Your task to perform on an android device: What's the weather going to be tomorrow? Image 0: 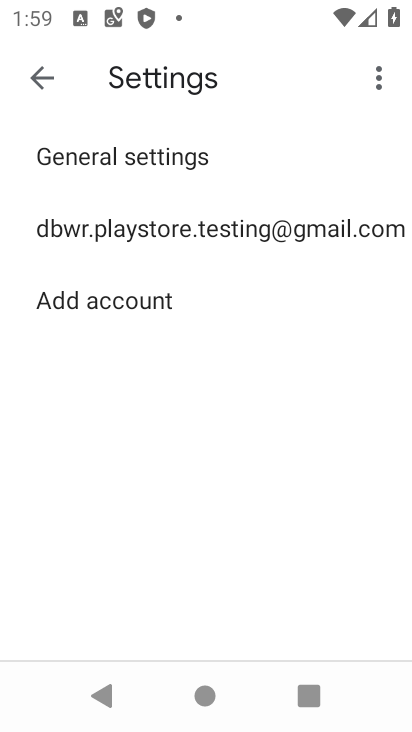
Step 0: press home button
Your task to perform on an android device: What's the weather going to be tomorrow? Image 1: 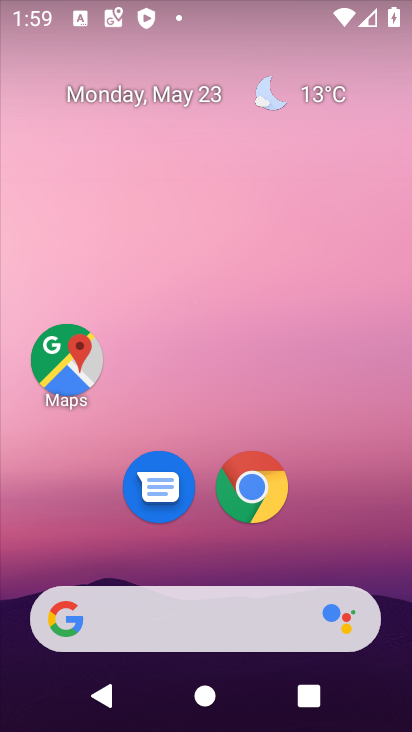
Step 1: click (331, 95)
Your task to perform on an android device: What's the weather going to be tomorrow? Image 2: 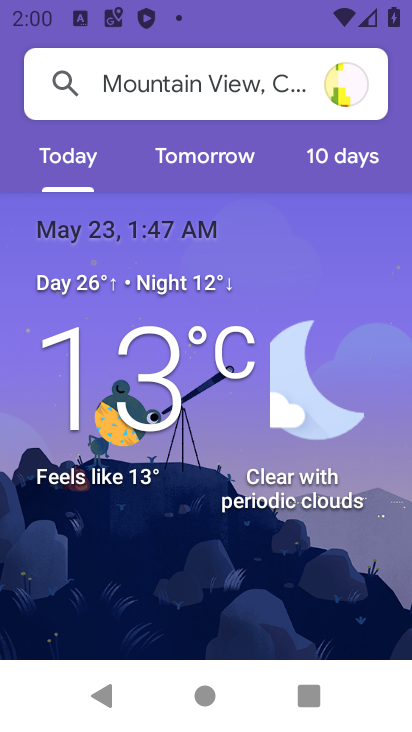
Step 2: click (191, 155)
Your task to perform on an android device: What's the weather going to be tomorrow? Image 3: 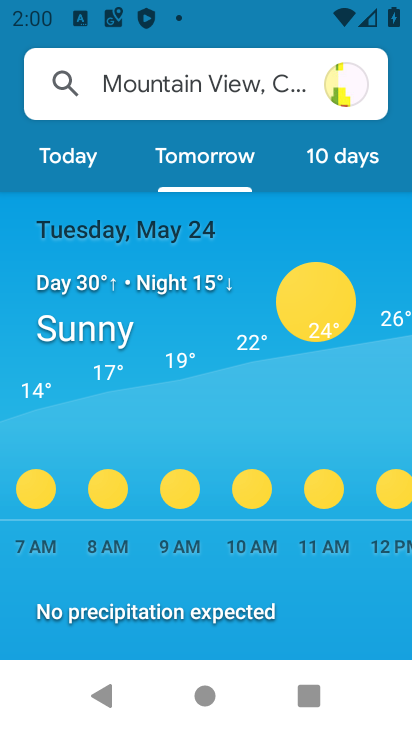
Step 3: drag from (344, 515) to (4, 514)
Your task to perform on an android device: What's the weather going to be tomorrow? Image 4: 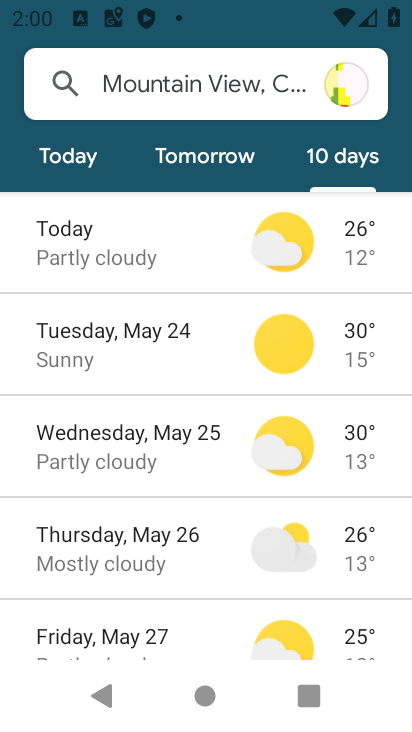
Step 4: click (181, 146)
Your task to perform on an android device: What's the weather going to be tomorrow? Image 5: 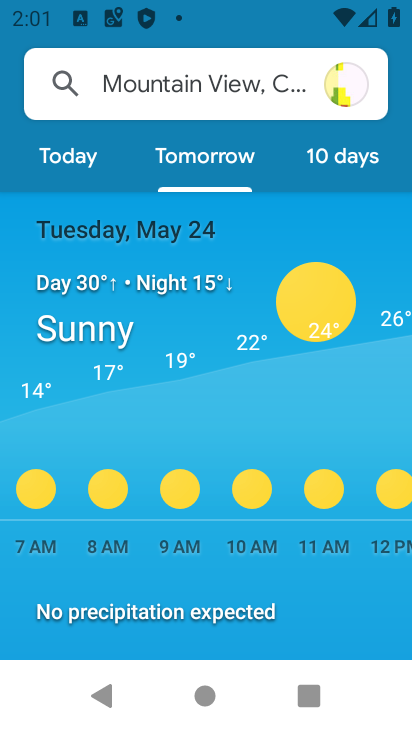
Step 5: task complete